Your task to perform on an android device: Open Chrome and go to the settings page Image 0: 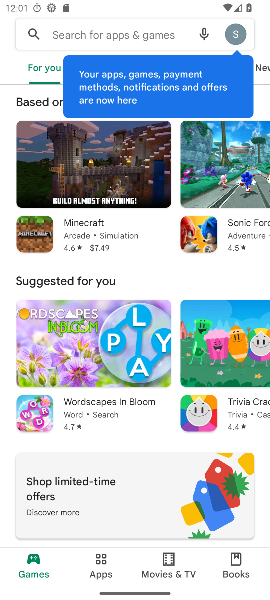
Step 0: press home button
Your task to perform on an android device: Open Chrome and go to the settings page Image 1: 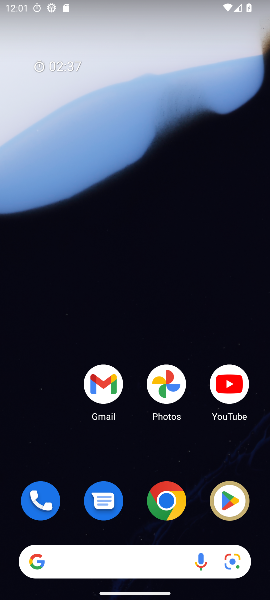
Step 1: click (170, 496)
Your task to perform on an android device: Open Chrome and go to the settings page Image 2: 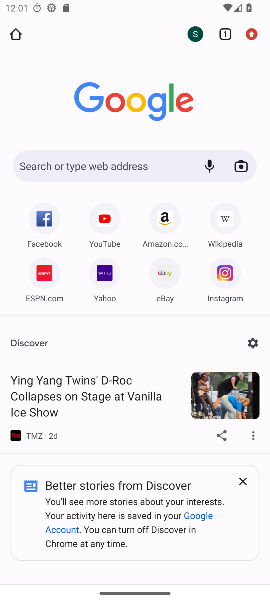
Step 2: click (250, 32)
Your task to perform on an android device: Open Chrome and go to the settings page Image 3: 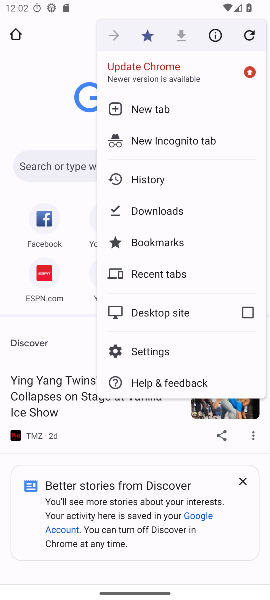
Step 3: click (148, 349)
Your task to perform on an android device: Open Chrome and go to the settings page Image 4: 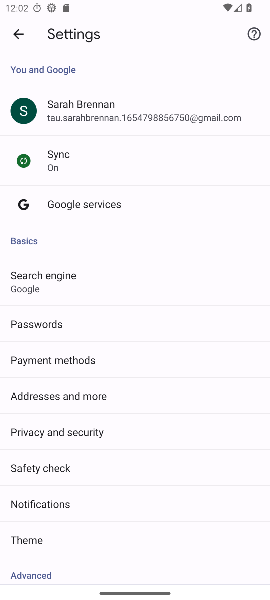
Step 4: task complete